Your task to perform on an android device: Open wifi settings Image 0: 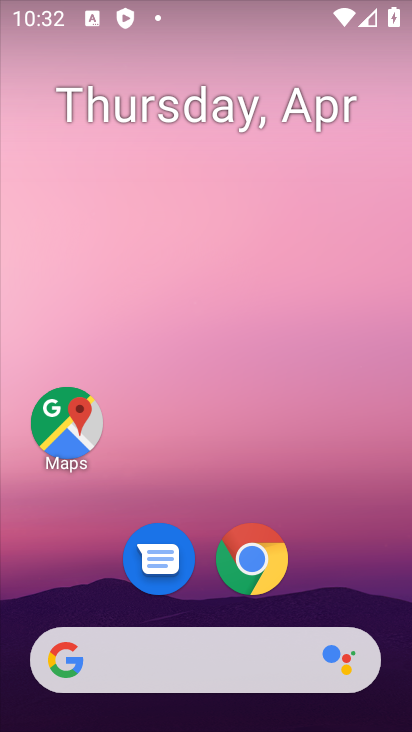
Step 0: drag from (236, 684) to (173, 238)
Your task to perform on an android device: Open wifi settings Image 1: 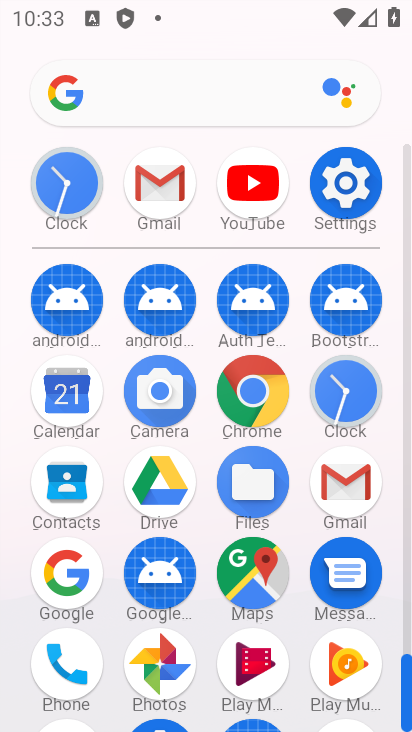
Step 1: click (341, 171)
Your task to perform on an android device: Open wifi settings Image 2: 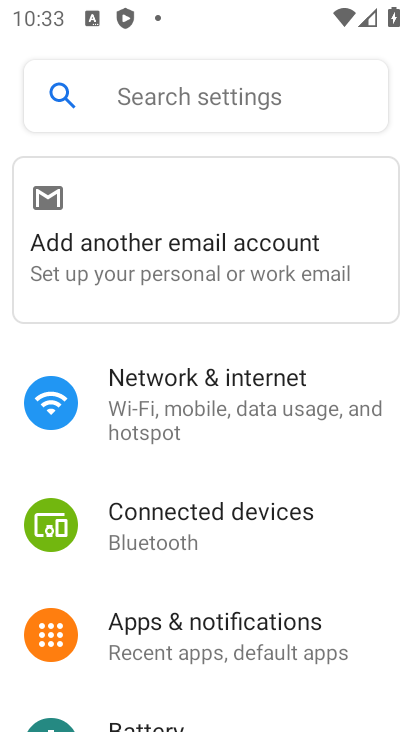
Step 2: click (269, 380)
Your task to perform on an android device: Open wifi settings Image 3: 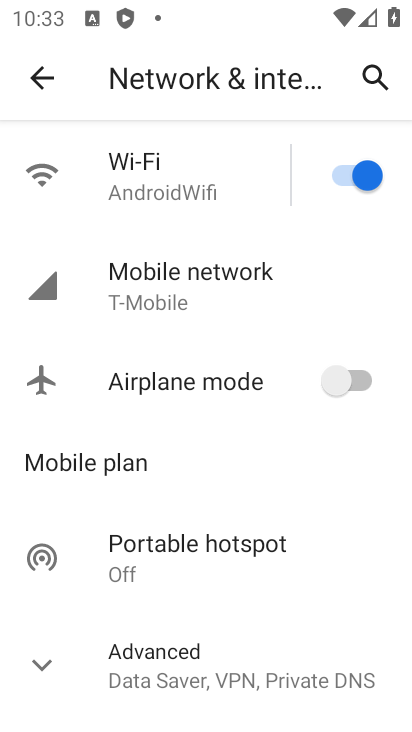
Step 3: click (206, 181)
Your task to perform on an android device: Open wifi settings Image 4: 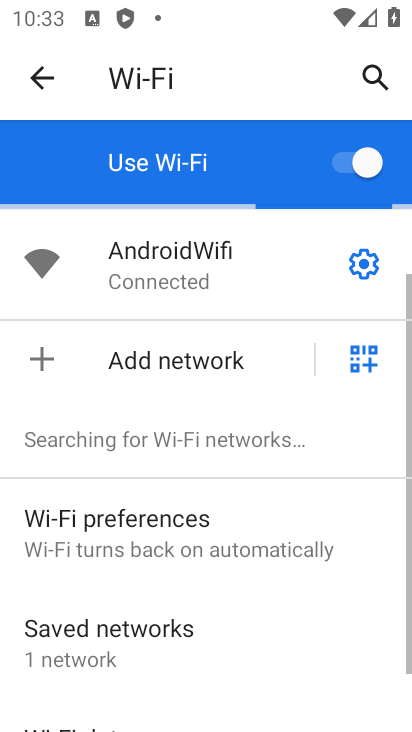
Step 4: click (364, 263)
Your task to perform on an android device: Open wifi settings Image 5: 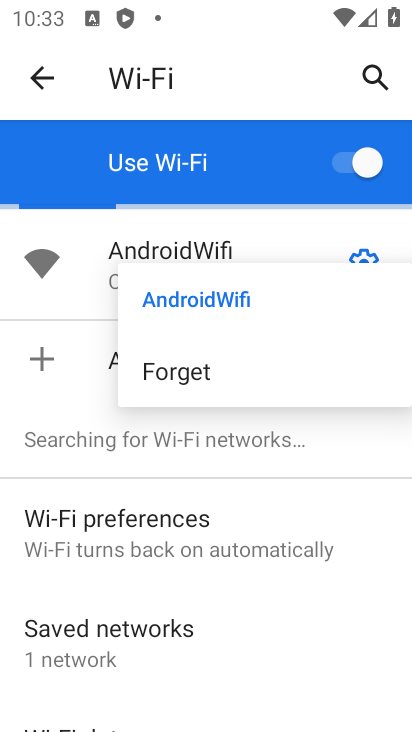
Step 5: click (362, 249)
Your task to perform on an android device: Open wifi settings Image 6: 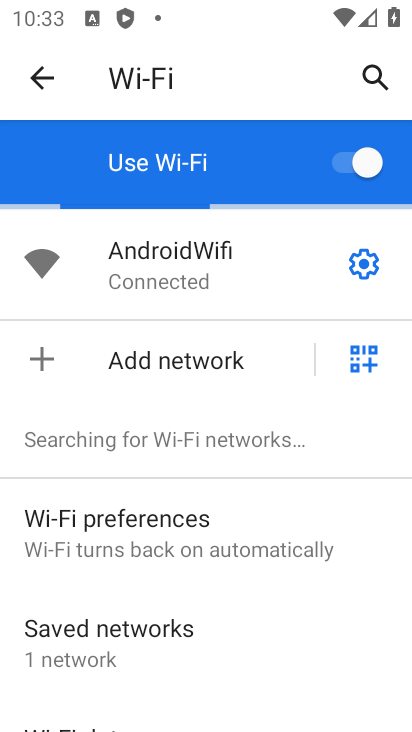
Step 6: click (366, 261)
Your task to perform on an android device: Open wifi settings Image 7: 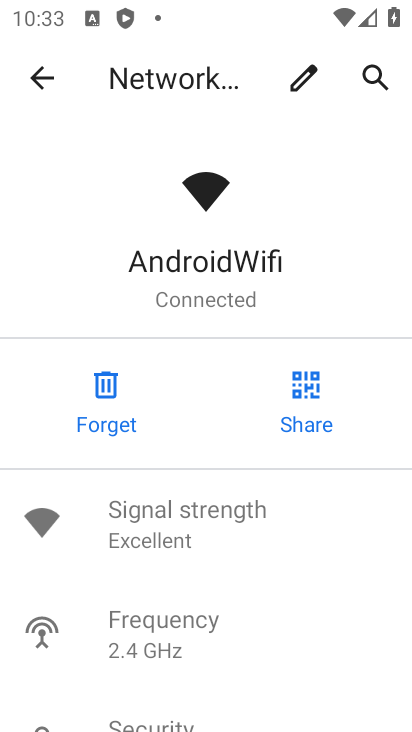
Step 7: task complete